Your task to perform on an android device: Show me productivity apps on the Play Store Image 0: 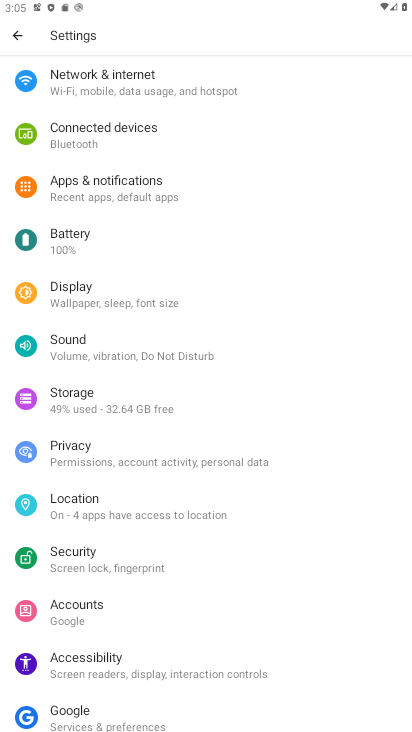
Step 0: press home button
Your task to perform on an android device: Show me productivity apps on the Play Store Image 1: 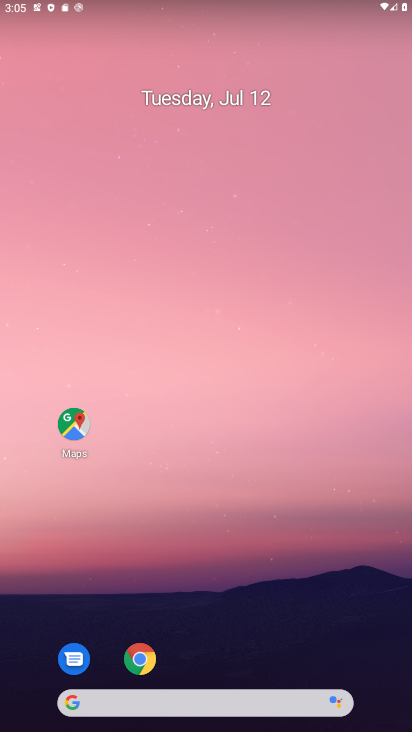
Step 1: drag from (225, 726) to (219, 692)
Your task to perform on an android device: Show me productivity apps on the Play Store Image 2: 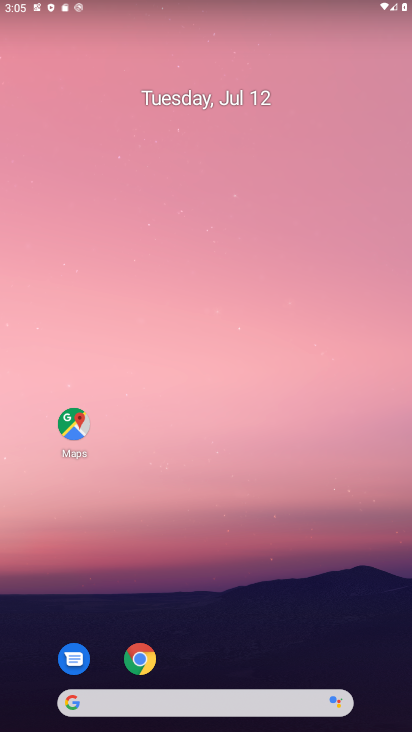
Step 2: click (203, 224)
Your task to perform on an android device: Show me productivity apps on the Play Store Image 3: 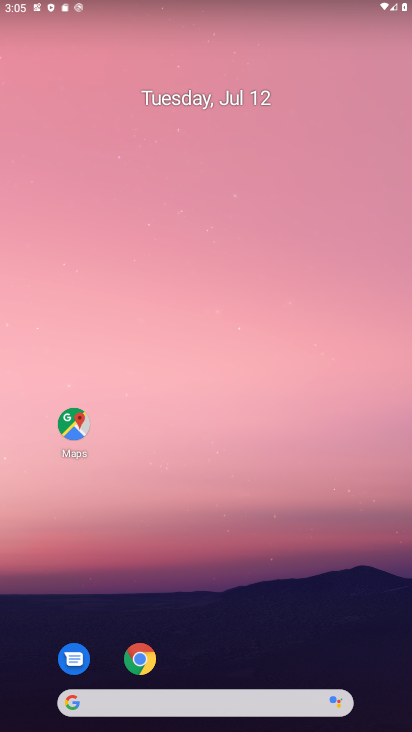
Step 3: drag from (214, 706) to (189, 155)
Your task to perform on an android device: Show me productivity apps on the Play Store Image 4: 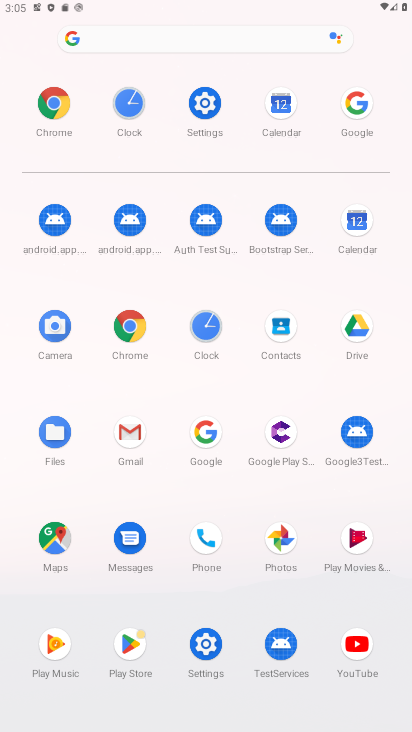
Step 4: click (126, 643)
Your task to perform on an android device: Show me productivity apps on the Play Store Image 5: 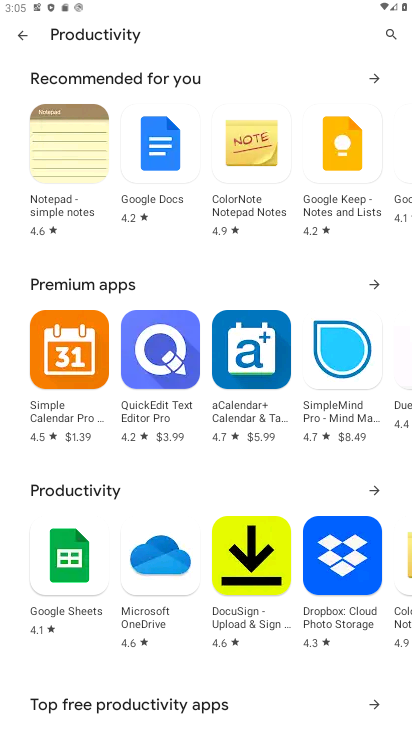
Step 5: task complete